Your task to perform on an android device: What's the weather? Image 0: 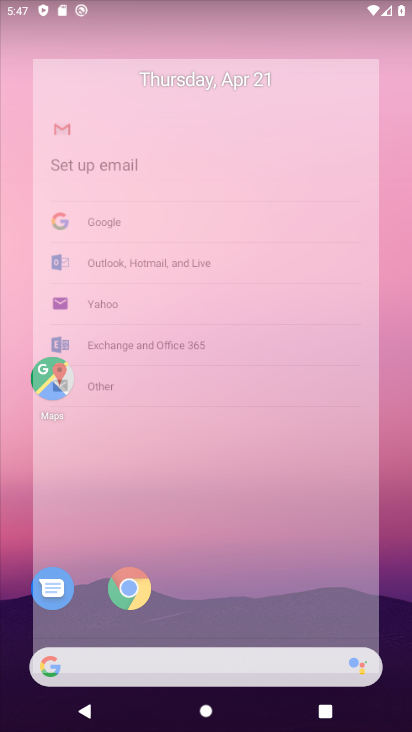
Step 0: drag from (244, 527) to (143, 167)
Your task to perform on an android device: What's the weather? Image 1: 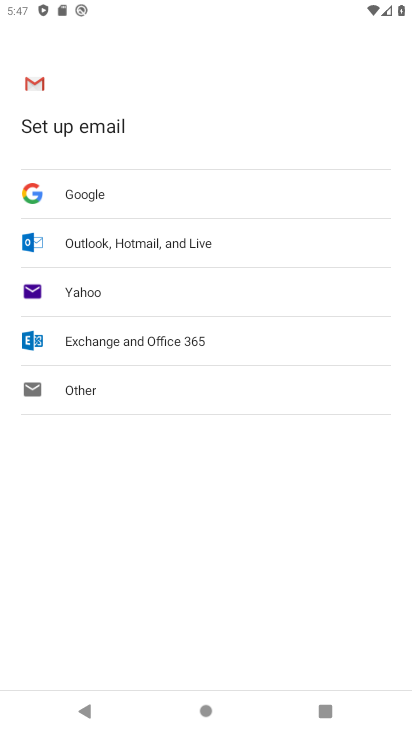
Step 1: press home button
Your task to perform on an android device: What's the weather? Image 2: 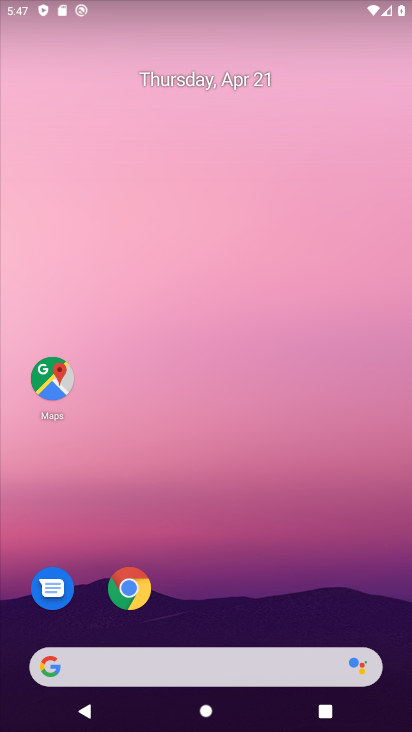
Step 2: drag from (248, 596) to (227, 143)
Your task to perform on an android device: What's the weather? Image 3: 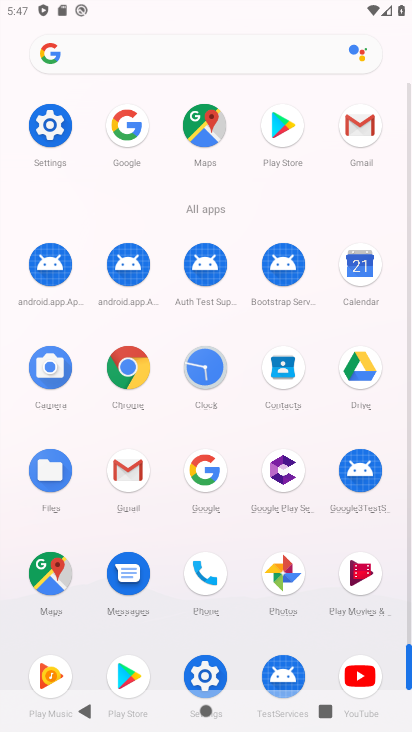
Step 3: click (55, 125)
Your task to perform on an android device: What's the weather? Image 4: 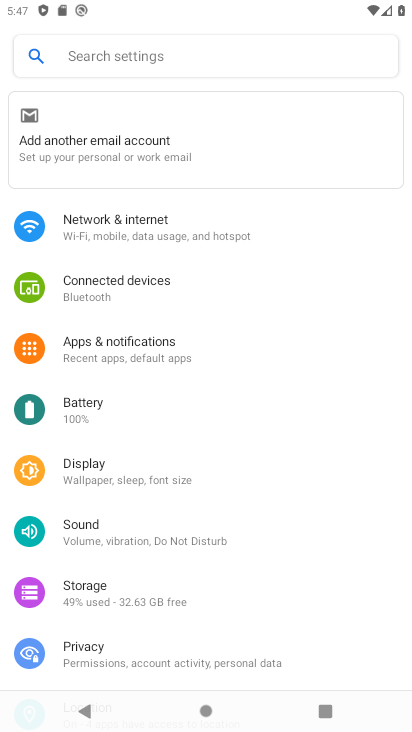
Step 4: drag from (103, 637) to (130, 303)
Your task to perform on an android device: What's the weather? Image 5: 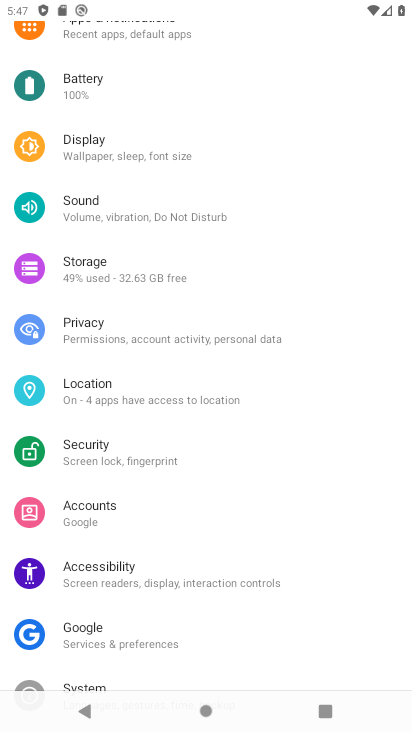
Step 5: click (98, 409)
Your task to perform on an android device: What's the weather? Image 6: 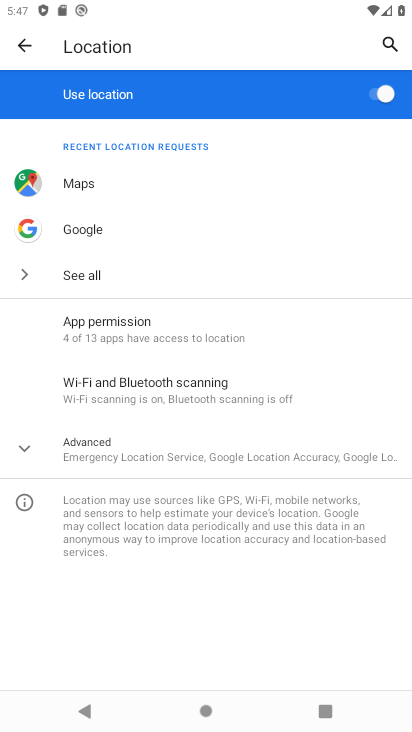
Step 6: press home button
Your task to perform on an android device: What's the weather? Image 7: 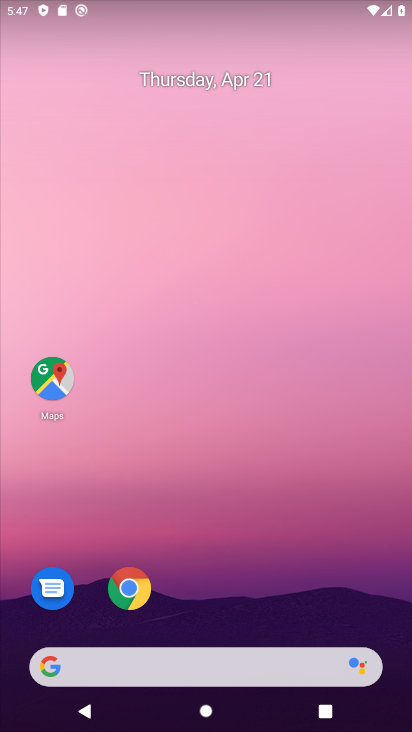
Step 7: drag from (272, 441) to (253, 124)
Your task to perform on an android device: What's the weather? Image 8: 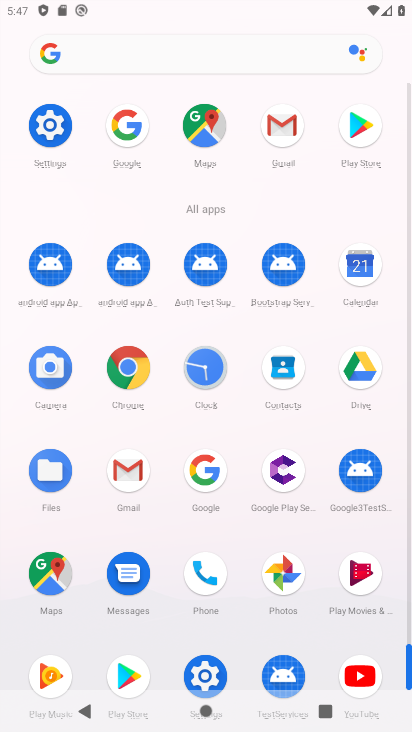
Step 8: click (204, 478)
Your task to perform on an android device: What's the weather? Image 9: 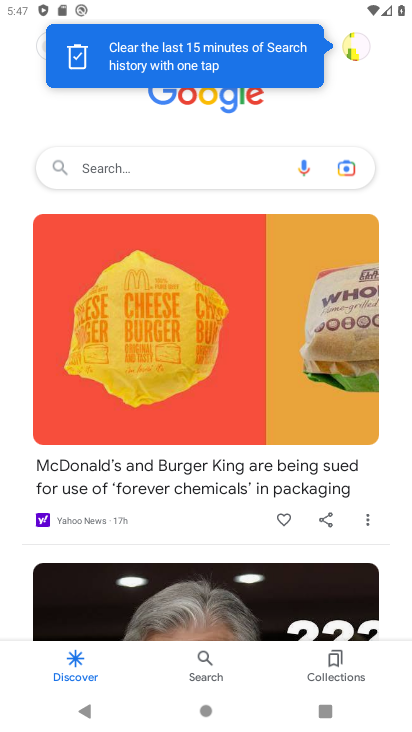
Step 9: click (206, 166)
Your task to perform on an android device: What's the weather? Image 10: 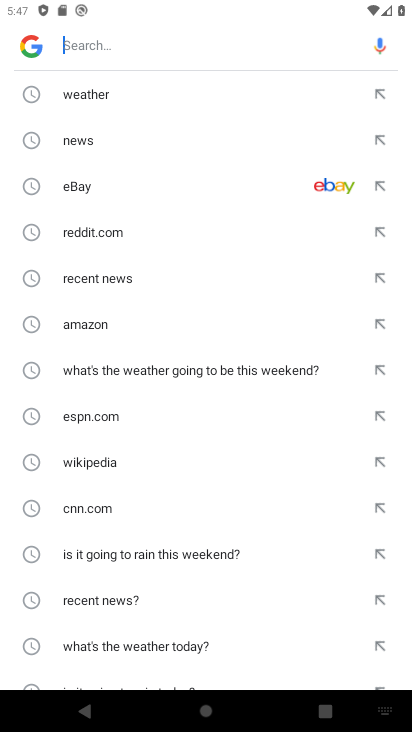
Step 10: click (82, 87)
Your task to perform on an android device: What's the weather? Image 11: 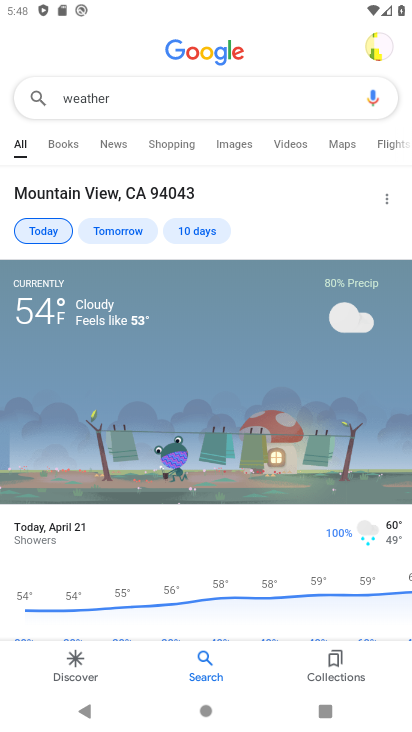
Step 11: task complete